Your task to perform on an android device: What's the weather today? Image 0: 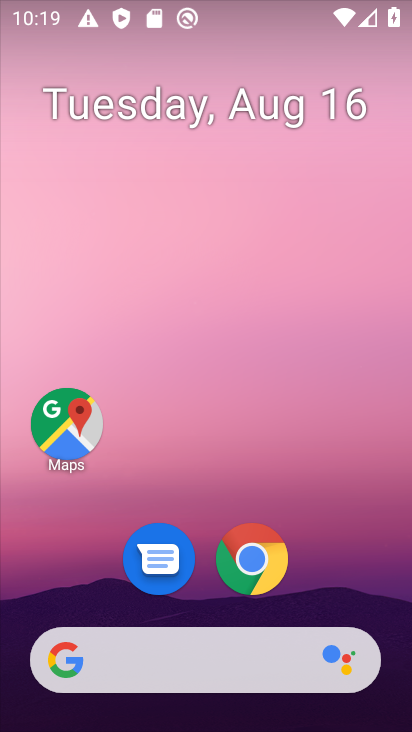
Step 0: click (250, 565)
Your task to perform on an android device: What's the weather today? Image 1: 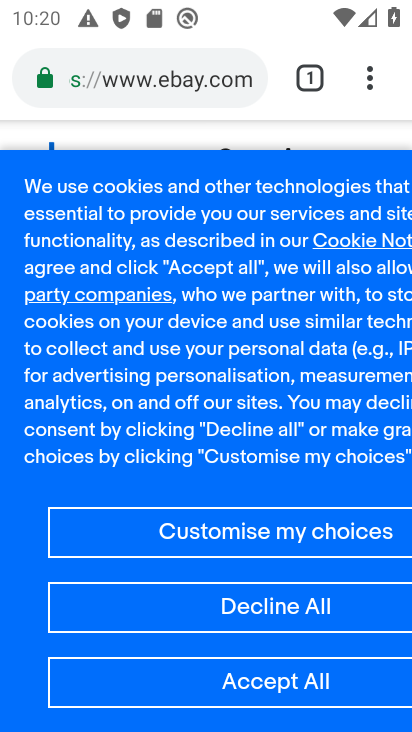
Step 1: press back button
Your task to perform on an android device: What's the weather today? Image 2: 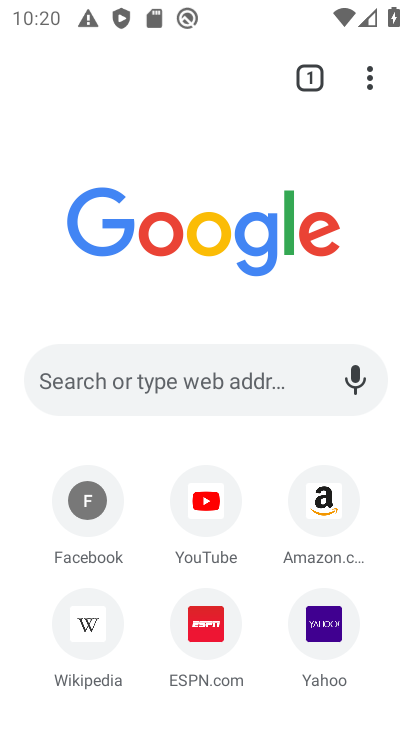
Step 2: press back button
Your task to perform on an android device: What's the weather today? Image 3: 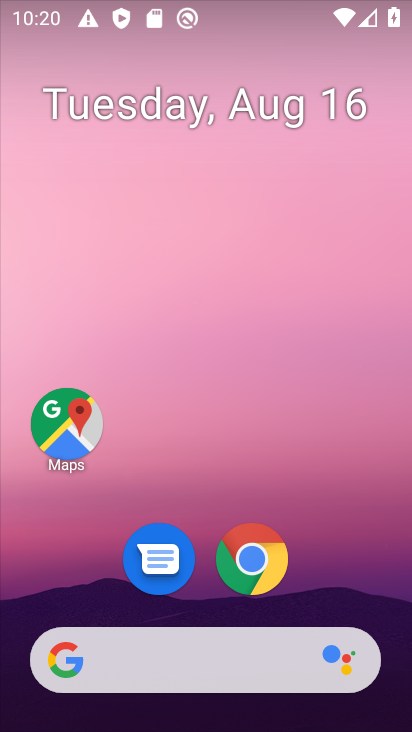
Step 3: click (173, 662)
Your task to perform on an android device: What's the weather today? Image 4: 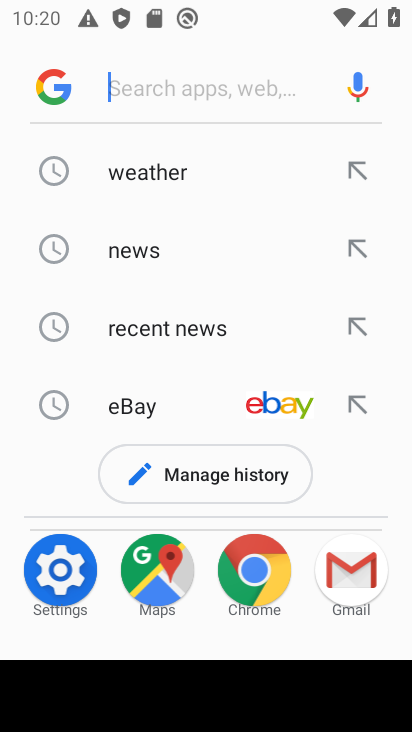
Step 4: click (173, 176)
Your task to perform on an android device: What's the weather today? Image 5: 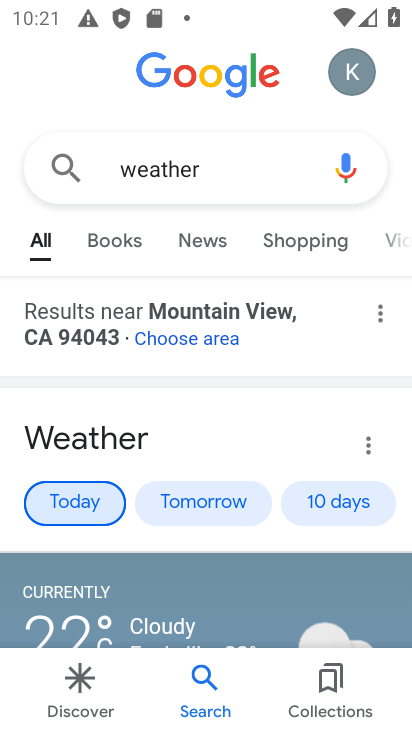
Step 5: task complete